Your task to perform on an android device: See recent photos Image 0: 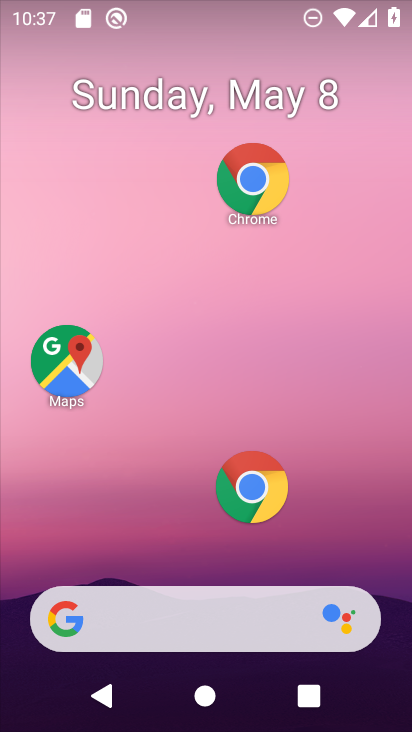
Step 0: drag from (170, 483) to (188, 17)
Your task to perform on an android device: See recent photos Image 1: 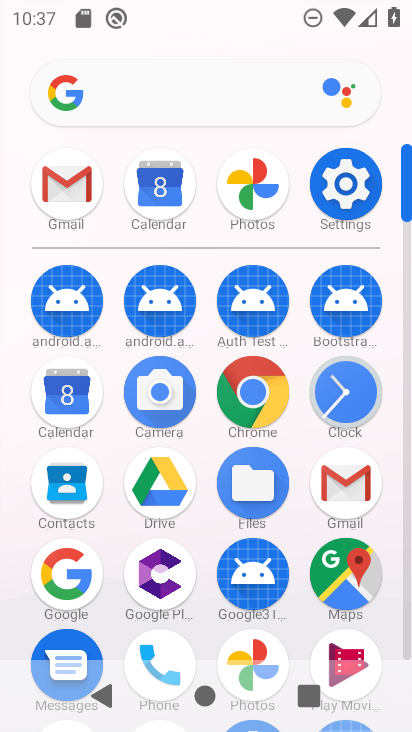
Step 1: click (259, 182)
Your task to perform on an android device: See recent photos Image 2: 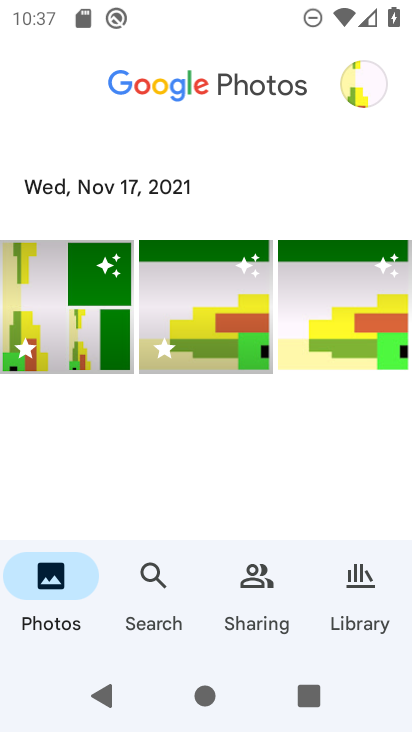
Step 2: click (151, 570)
Your task to perform on an android device: See recent photos Image 3: 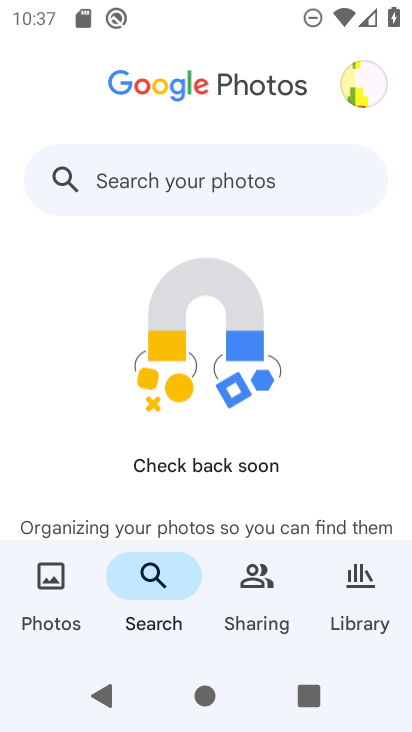
Step 3: click (272, 159)
Your task to perform on an android device: See recent photos Image 4: 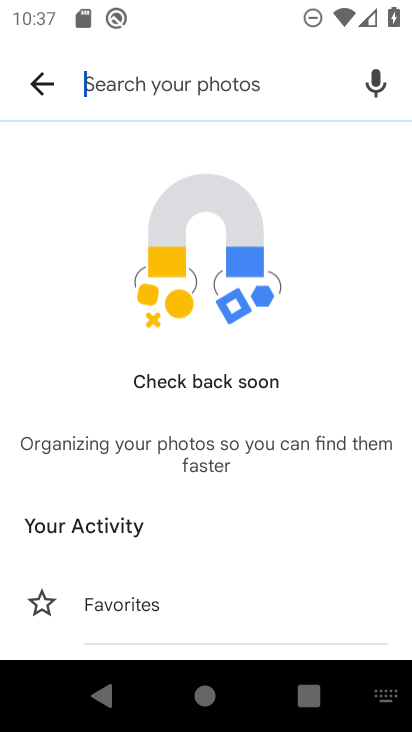
Step 4: drag from (220, 559) to (241, 229)
Your task to perform on an android device: See recent photos Image 5: 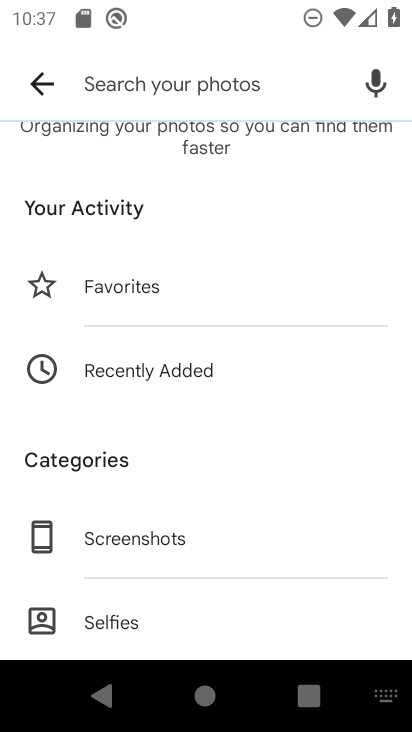
Step 5: click (195, 361)
Your task to perform on an android device: See recent photos Image 6: 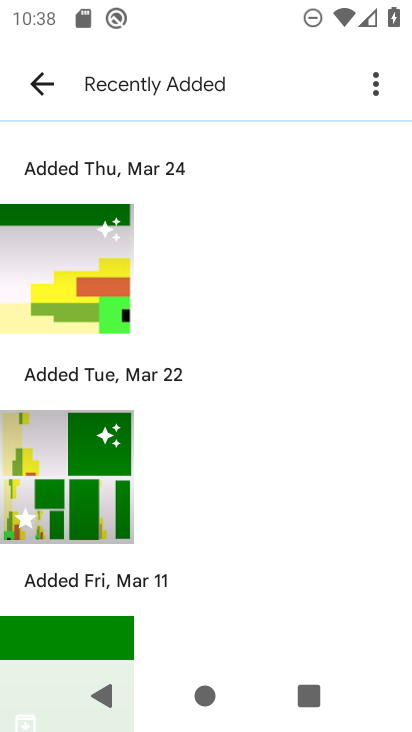
Step 6: task complete